Your task to perform on an android device: find snoozed emails in the gmail app Image 0: 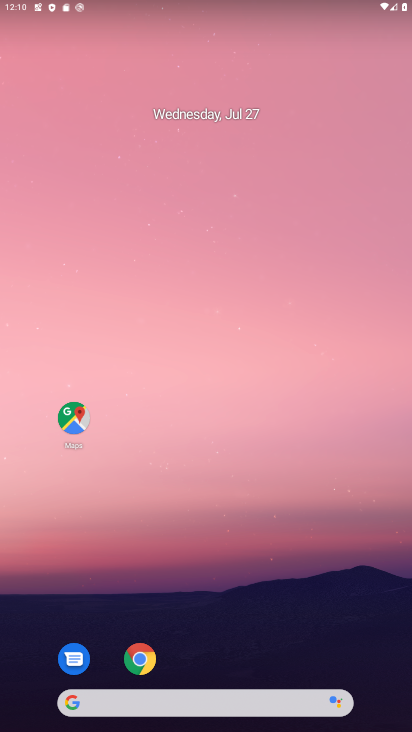
Step 0: drag from (217, 676) to (248, 53)
Your task to perform on an android device: find snoozed emails in the gmail app Image 1: 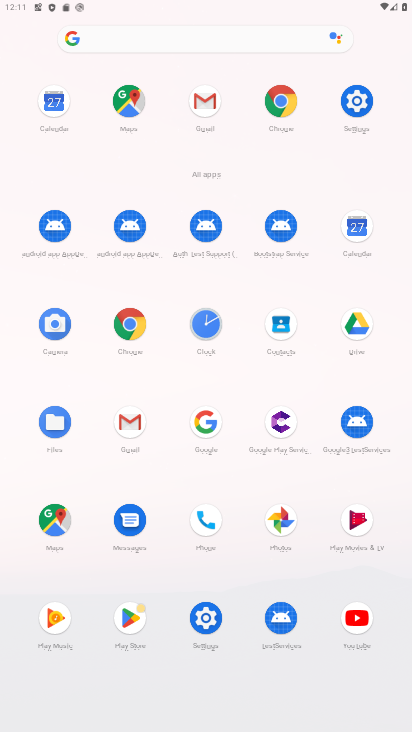
Step 1: click (198, 96)
Your task to perform on an android device: find snoozed emails in the gmail app Image 2: 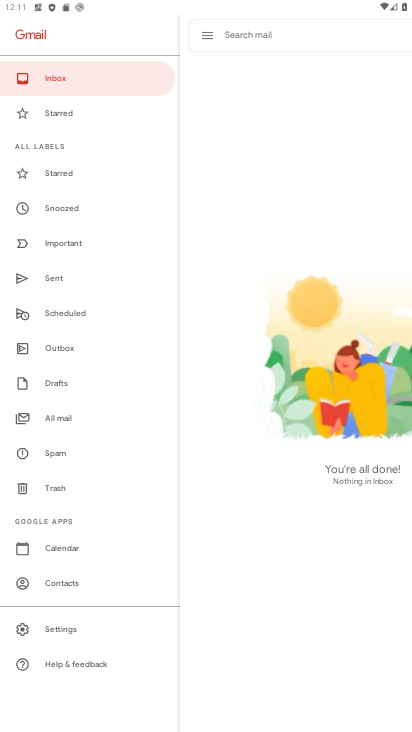
Step 2: click (88, 206)
Your task to perform on an android device: find snoozed emails in the gmail app Image 3: 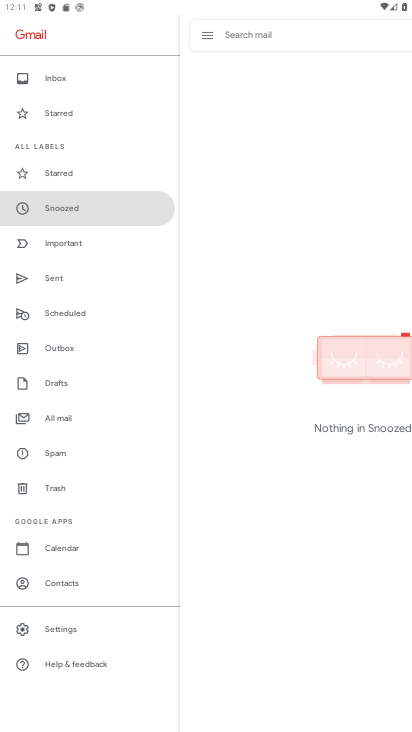
Step 3: task complete